Your task to perform on an android device: Go to Yahoo.com Image 0: 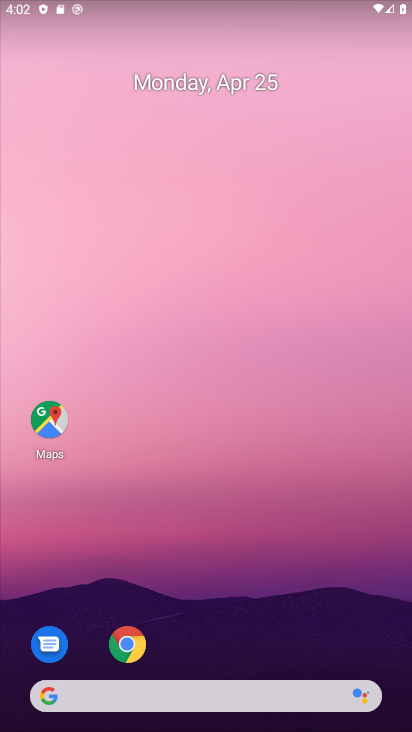
Step 0: click (136, 646)
Your task to perform on an android device: Go to Yahoo.com Image 1: 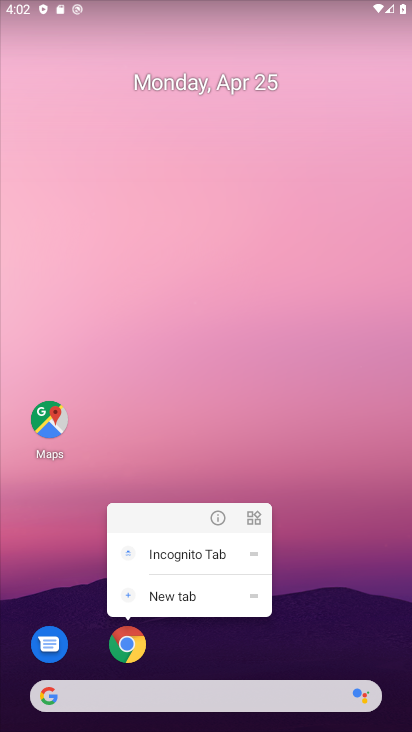
Step 1: click (138, 643)
Your task to perform on an android device: Go to Yahoo.com Image 2: 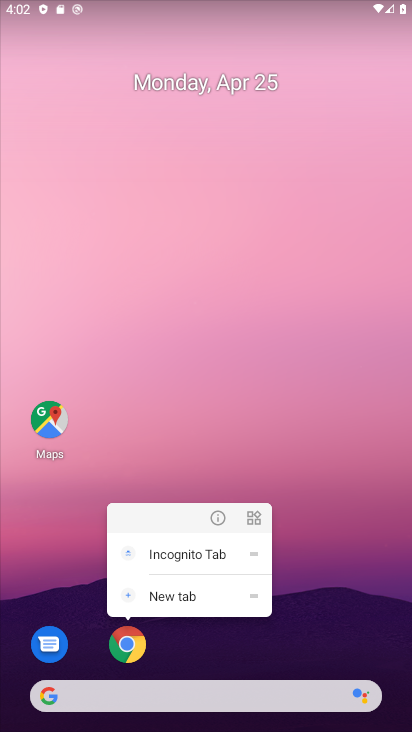
Step 2: click (137, 645)
Your task to perform on an android device: Go to Yahoo.com Image 3: 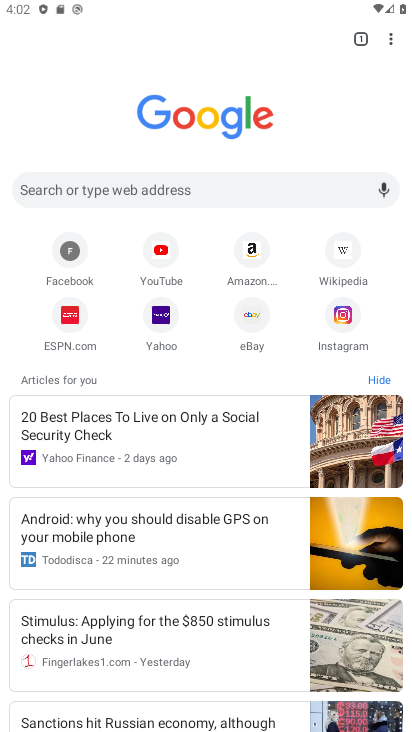
Step 3: click (166, 329)
Your task to perform on an android device: Go to Yahoo.com Image 4: 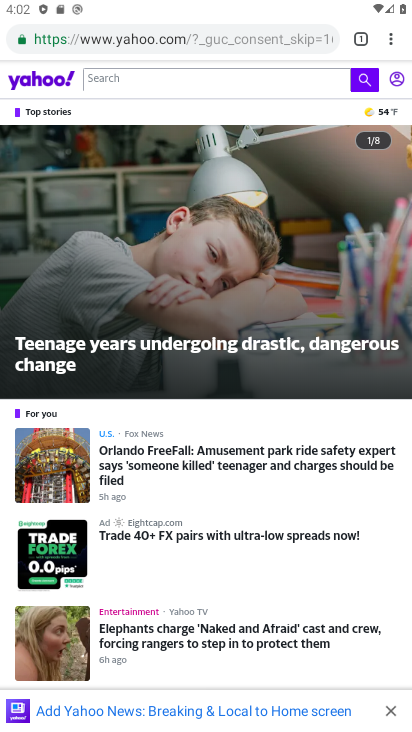
Step 4: task complete